Your task to perform on an android device: find which apps use the phone's location Image 0: 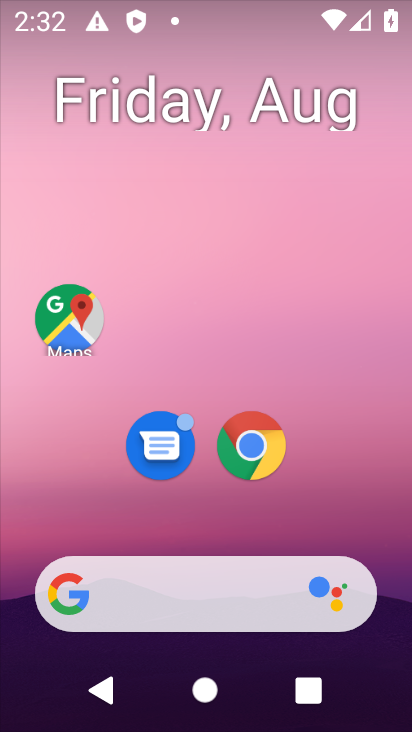
Step 0: drag from (353, 537) to (318, 170)
Your task to perform on an android device: find which apps use the phone's location Image 1: 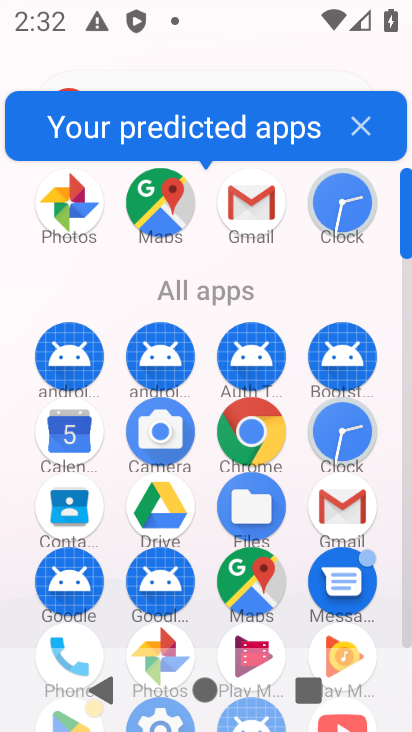
Step 1: drag from (204, 619) to (209, 378)
Your task to perform on an android device: find which apps use the phone's location Image 2: 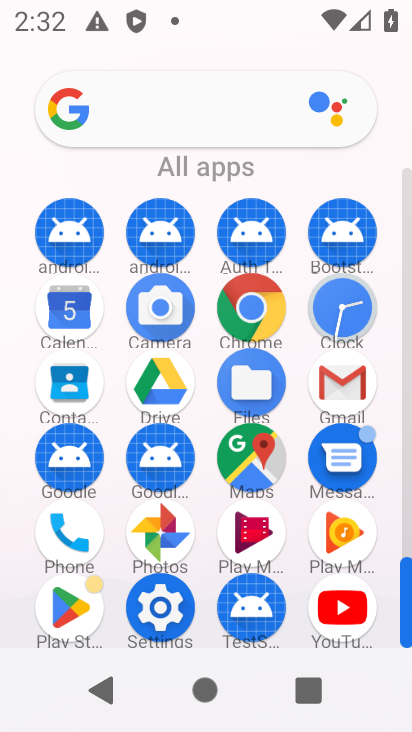
Step 2: click (160, 614)
Your task to perform on an android device: find which apps use the phone's location Image 3: 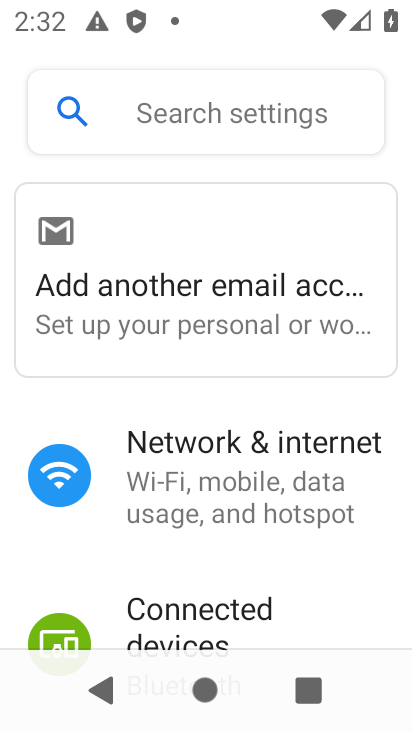
Step 3: drag from (365, 605) to (334, 270)
Your task to perform on an android device: find which apps use the phone's location Image 4: 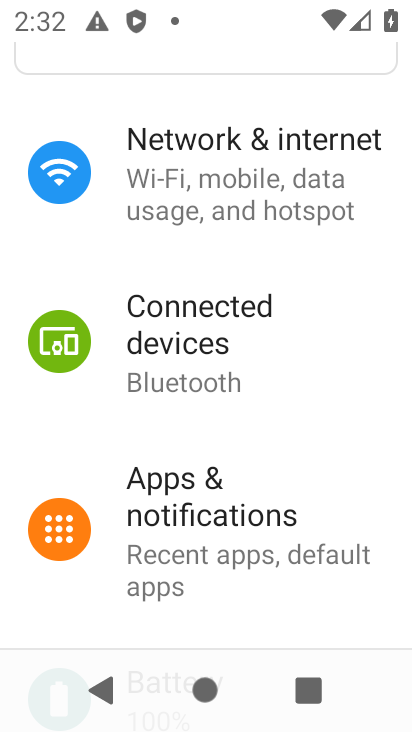
Step 4: drag from (379, 485) to (348, 203)
Your task to perform on an android device: find which apps use the phone's location Image 5: 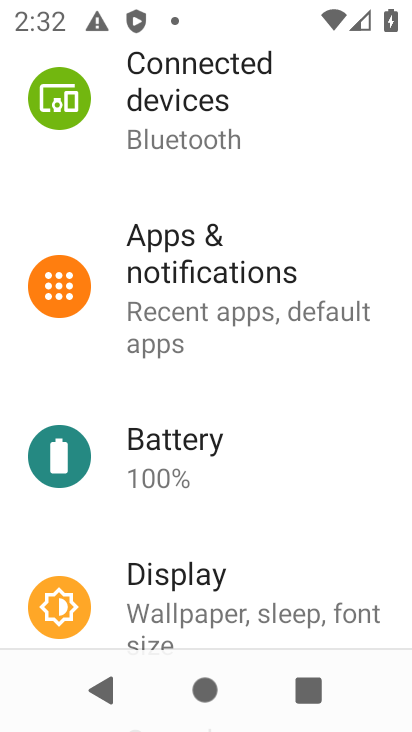
Step 5: drag from (357, 511) to (338, 112)
Your task to perform on an android device: find which apps use the phone's location Image 6: 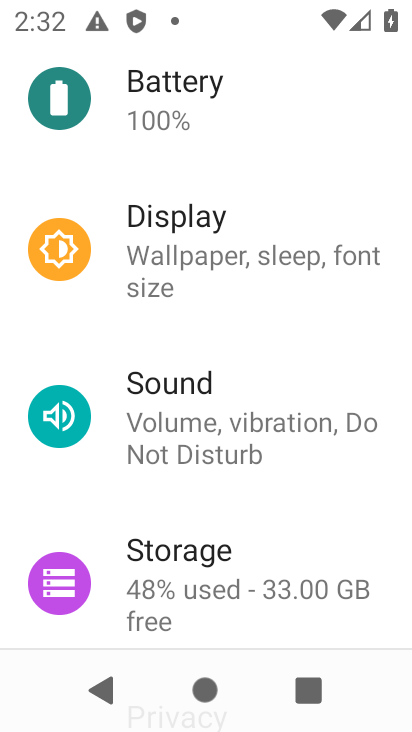
Step 6: drag from (342, 539) to (305, 188)
Your task to perform on an android device: find which apps use the phone's location Image 7: 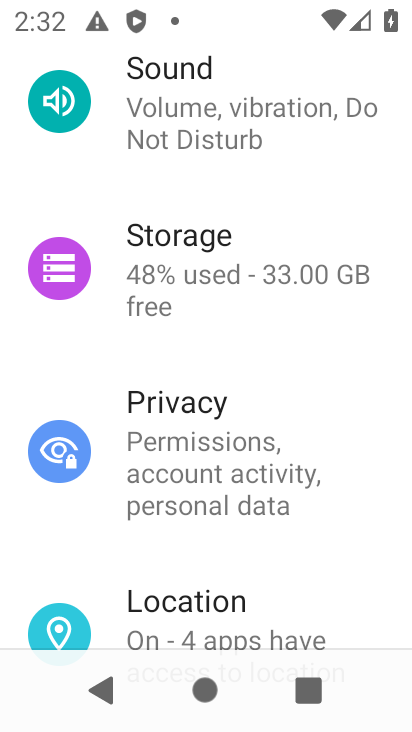
Step 7: click (220, 612)
Your task to perform on an android device: find which apps use the phone's location Image 8: 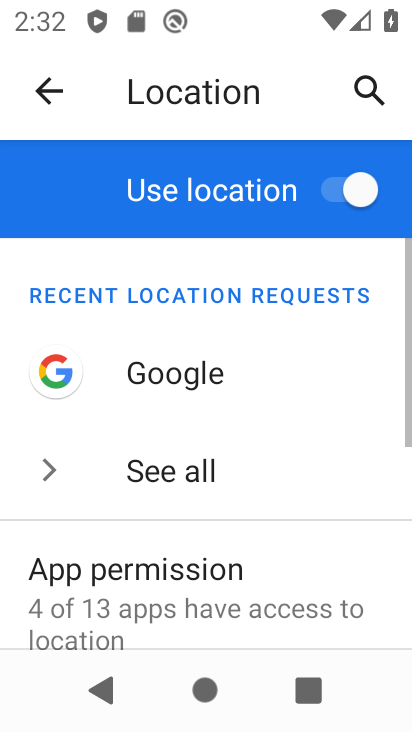
Step 8: click (220, 566)
Your task to perform on an android device: find which apps use the phone's location Image 9: 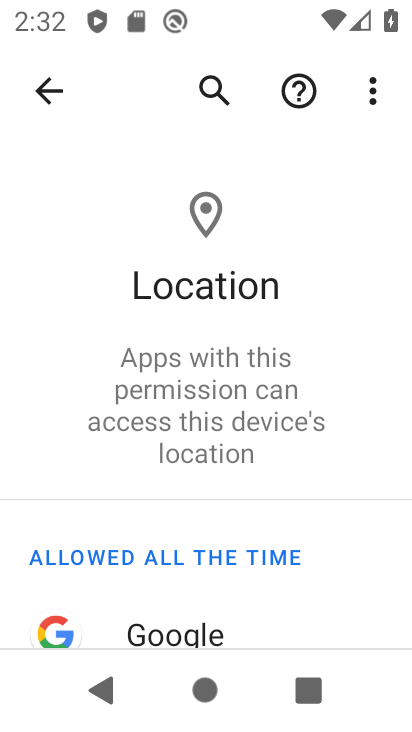
Step 9: task complete